Your task to perform on an android device: Open settings on Google Maps Image 0: 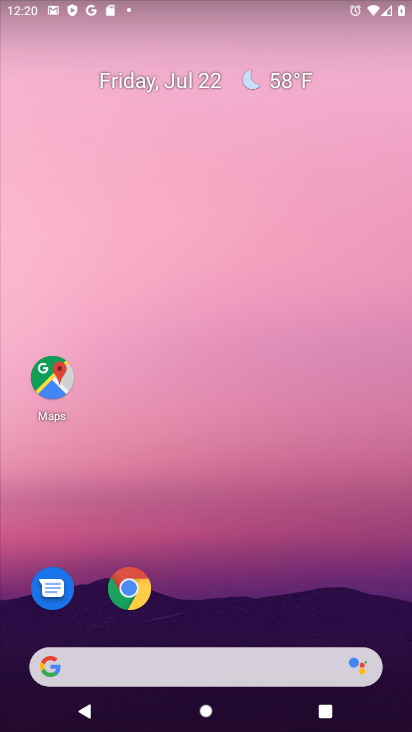
Step 0: click (55, 384)
Your task to perform on an android device: Open settings on Google Maps Image 1: 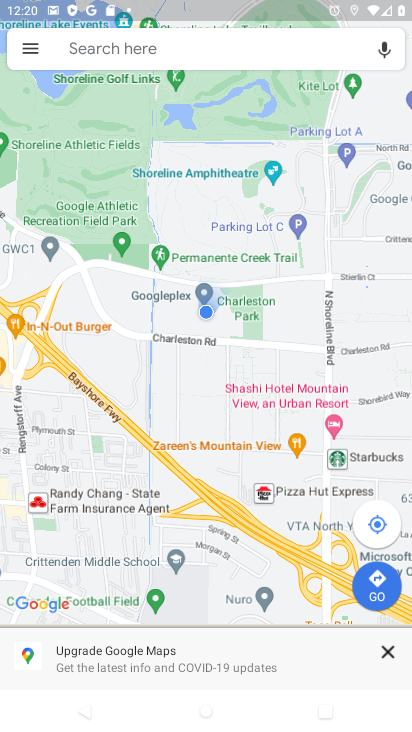
Step 1: click (30, 53)
Your task to perform on an android device: Open settings on Google Maps Image 2: 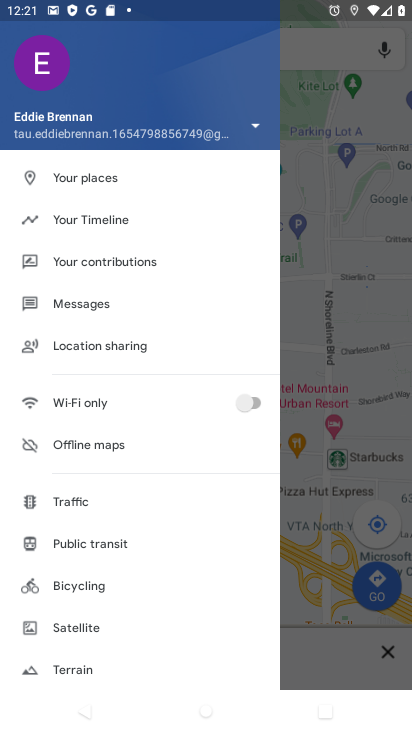
Step 2: drag from (150, 585) to (35, 113)
Your task to perform on an android device: Open settings on Google Maps Image 3: 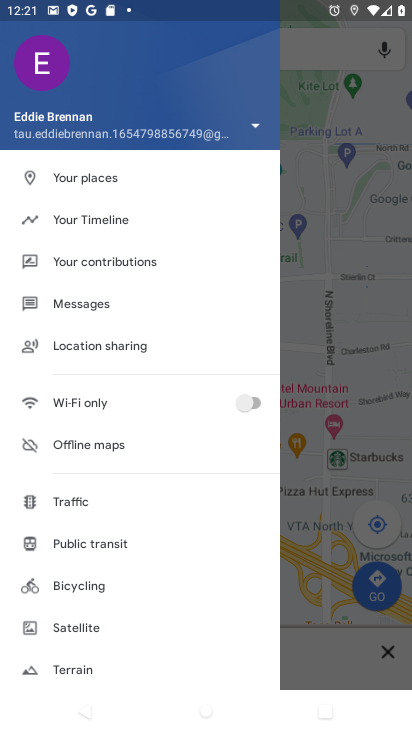
Step 3: drag from (98, 556) to (11, 86)
Your task to perform on an android device: Open settings on Google Maps Image 4: 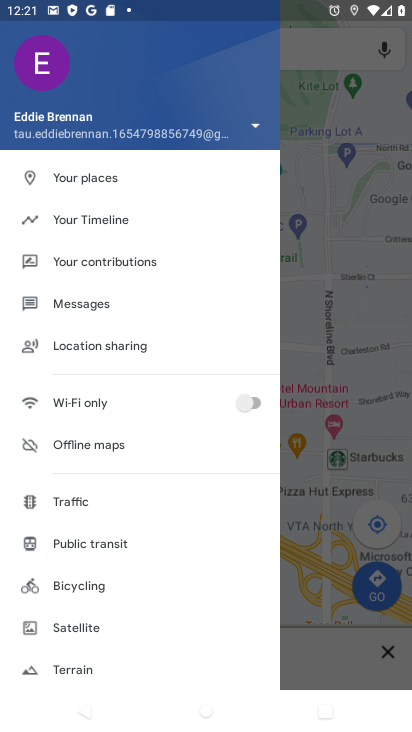
Step 4: drag from (92, 381) to (97, 12)
Your task to perform on an android device: Open settings on Google Maps Image 5: 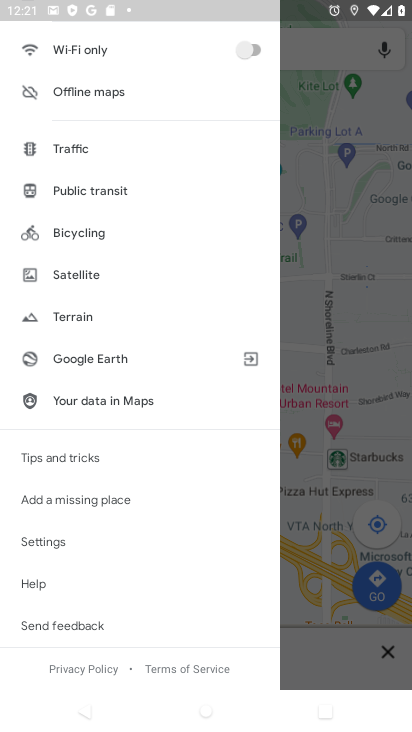
Step 5: click (101, 546)
Your task to perform on an android device: Open settings on Google Maps Image 6: 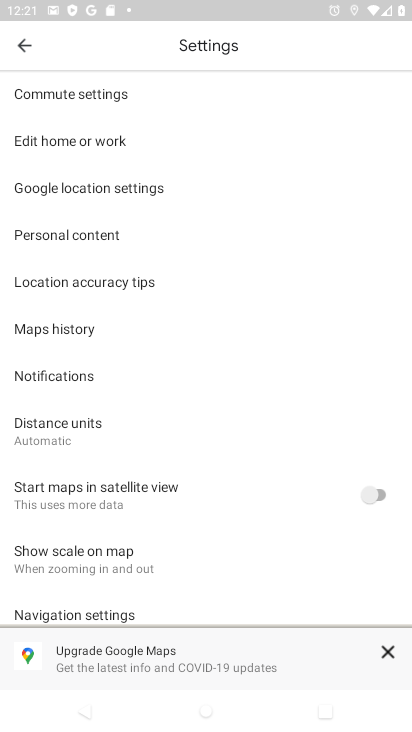
Step 6: task complete